Your task to perform on an android device: What's on my calendar tomorrow? Image 0: 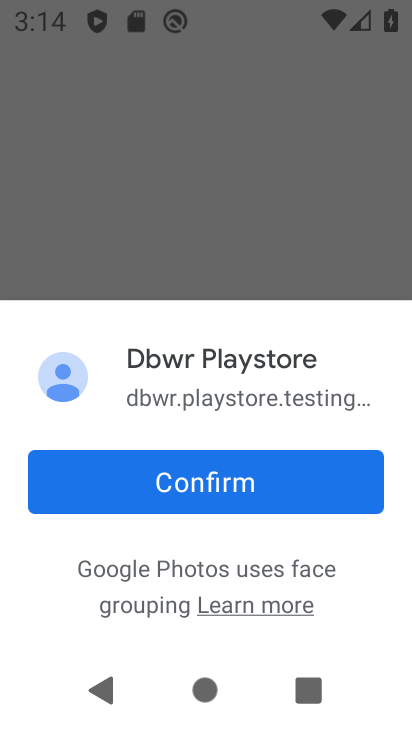
Step 0: press home button
Your task to perform on an android device: What's on my calendar tomorrow? Image 1: 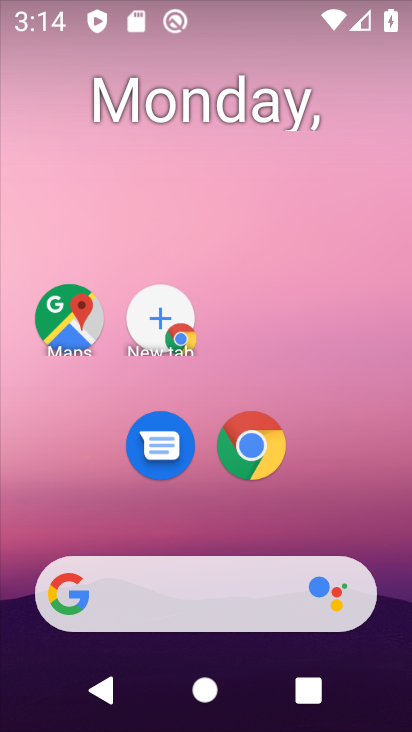
Step 1: drag from (205, 535) to (134, 12)
Your task to perform on an android device: What's on my calendar tomorrow? Image 2: 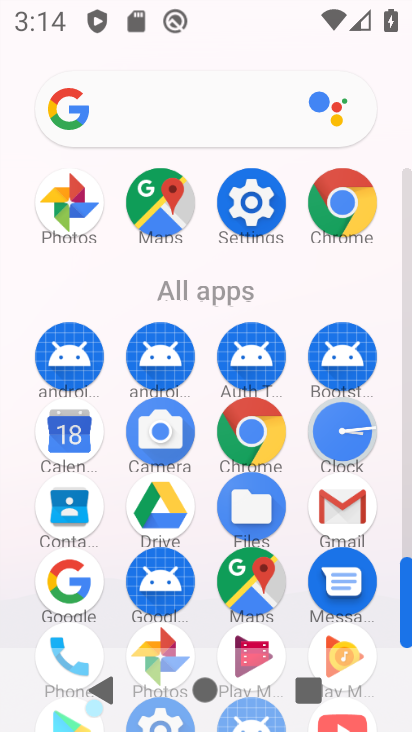
Step 2: click (64, 430)
Your task to perform on an android device: What's on my calendar tomorrow? Image 3: 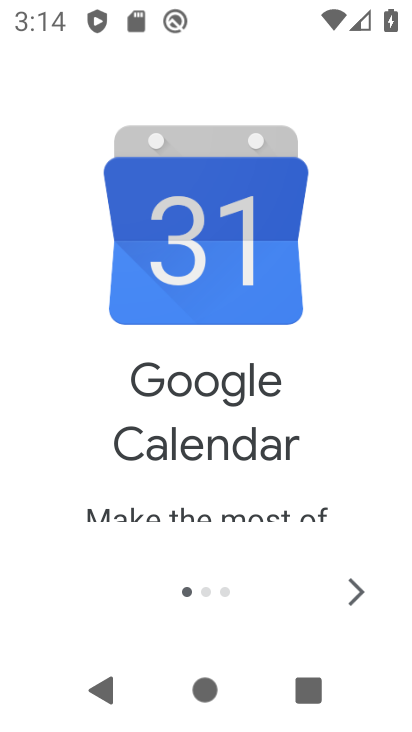
Step 3: click (376, 594)
Your task to perform on an android device: What's on my calendar tomorrow? Image 4: 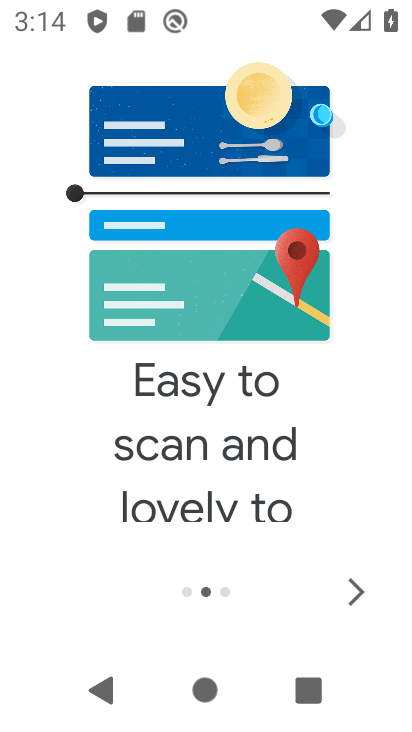
Step 4: click (359, 588)
Your task to perform on an android device: What's on my calendar tomorrow? Image 5: 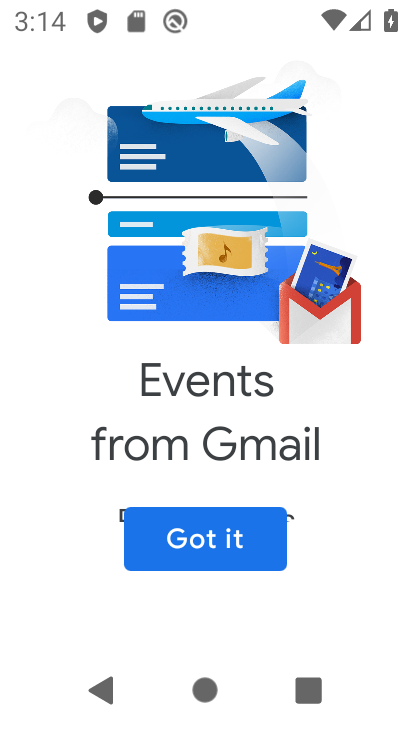
Step 5: click (204, 541)
Your task to perform on an android device: What's on my calendar tomorrow? Image 6: 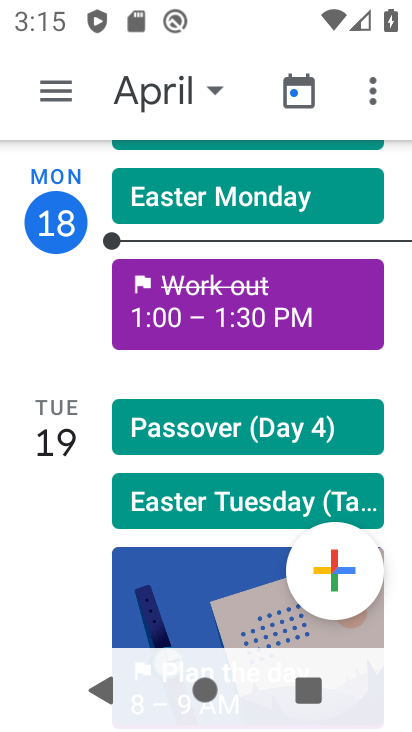
Step 6: click (59, 439)
Your task to perform on an android device: What's on my calendar tomorrow? Image 7: 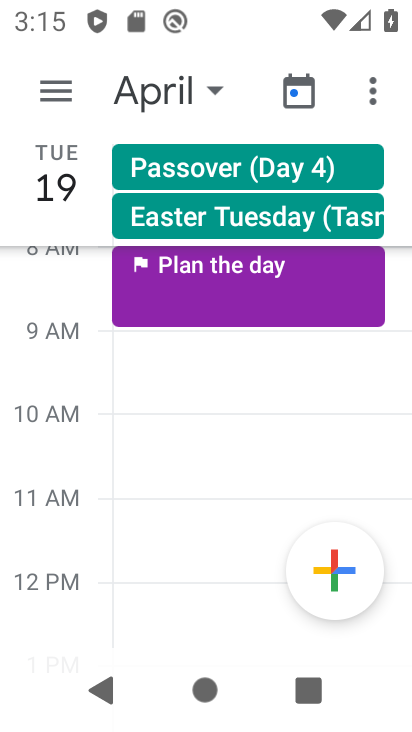
Step 7: drag from (56, 474) to (44, 261)
Your task to perform on an android device: What's on my calendar tomorrow? Image 8: 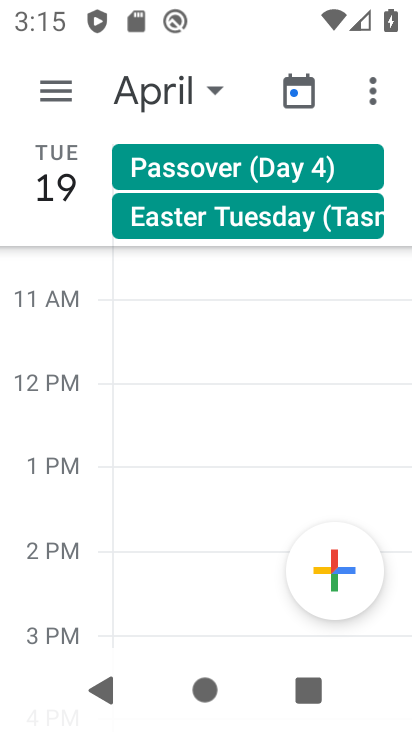
Step 8: drag from (48, 532) to (75, 244)
Your task to perform on an android device: What's on my calendar tomorrow? Image 9: 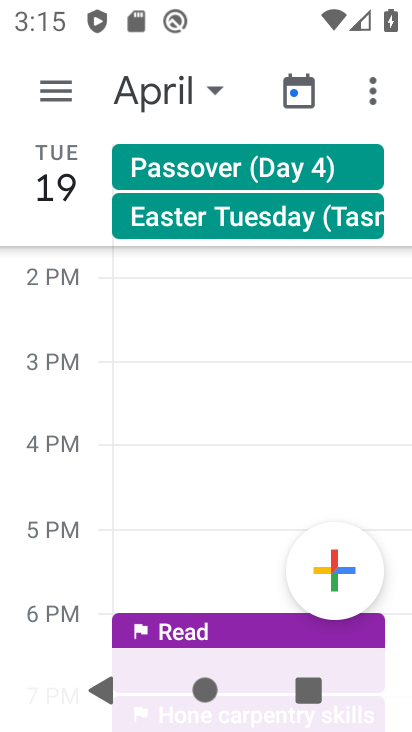
Step 9: drag from (56, 529) to (76, 336)
Your task to perform on an android device: What's on my calendar tomorrow? Image 10: 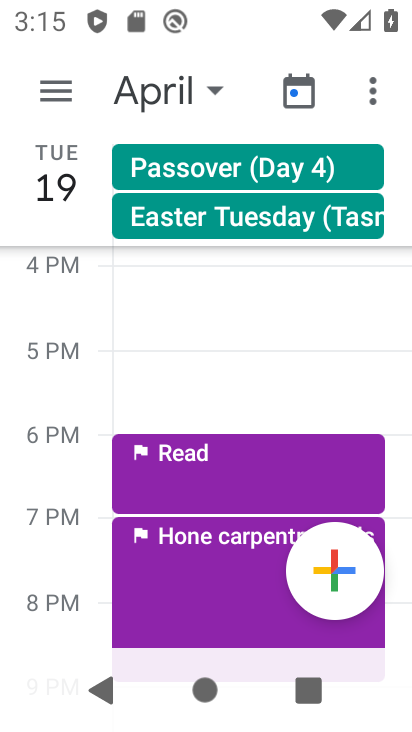
Step 10: click (86, 250)
Your task to perform on an android device: What's on my calendar tomorrow? Image 11: 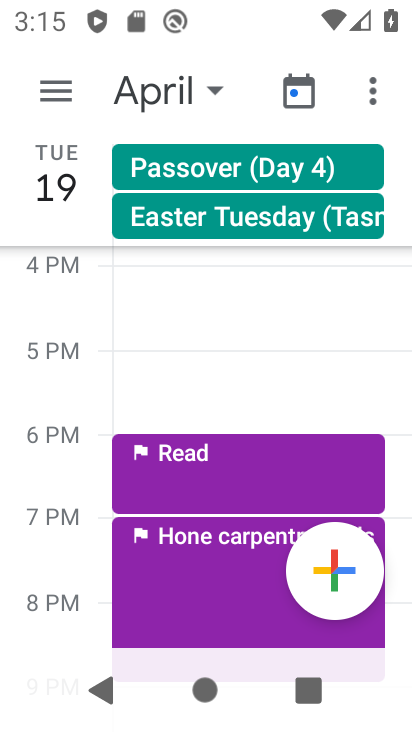
Step 11: task complete